Your task to perform on an android device: Turn on the flashlight Image 0: 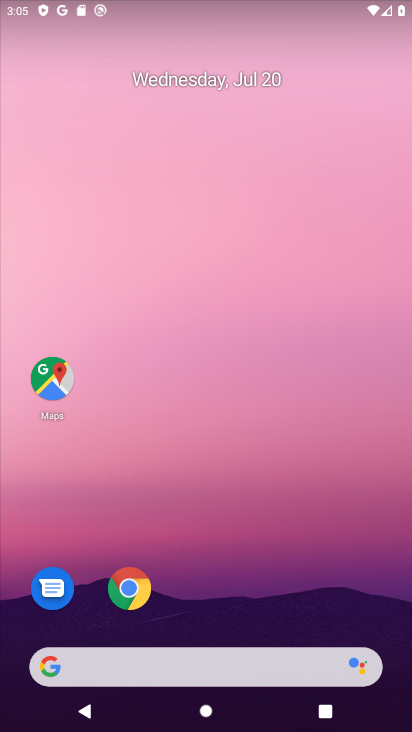
Step 0: drag from (197, 625) to (266, 48)
Your task to perform on an android device: Turn on the flashlight Image 1: 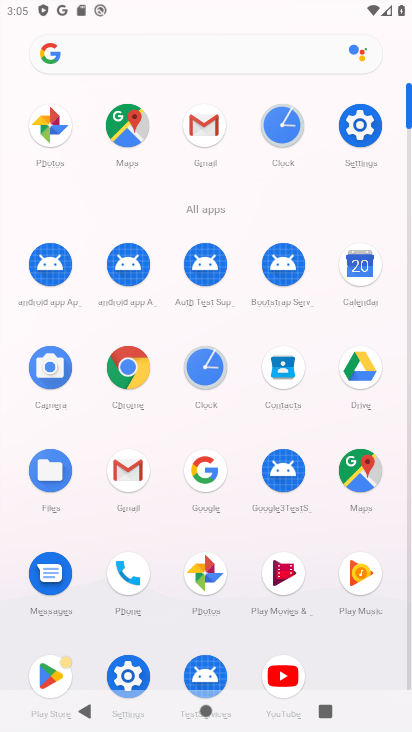
Step 1: click (377, 186)
Your task to perform on an android device: Turn on the flashlight Image 2: 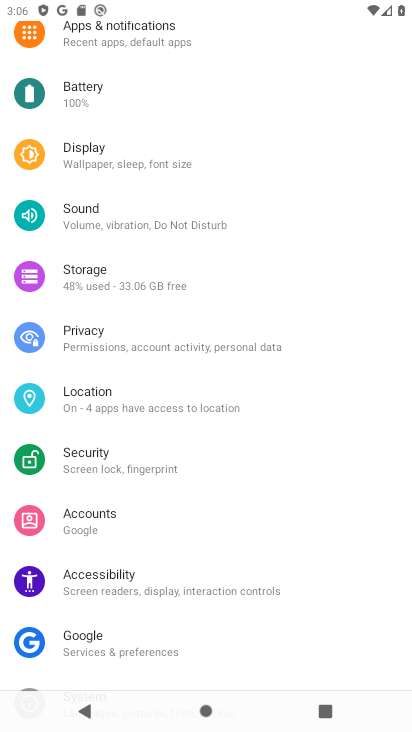
Step 2: task complete